Your task to perform on an android device: check storage Image 0: 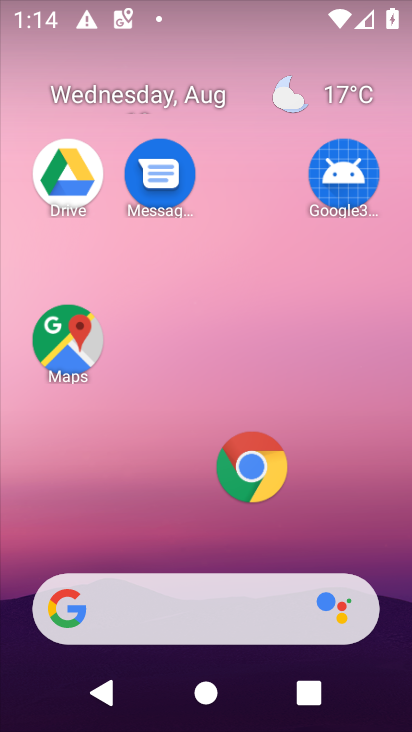
Step 0: drag from (173, 551) to (214, 296)
Your task to perform on an android device: check storage Image 1: 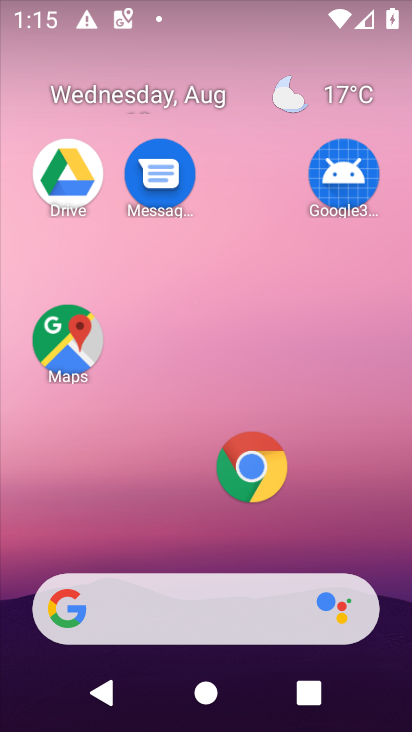
Step 1: drag from (176, 547) to (247, 59)
Your task to perform on an android device: check storage Image 2: 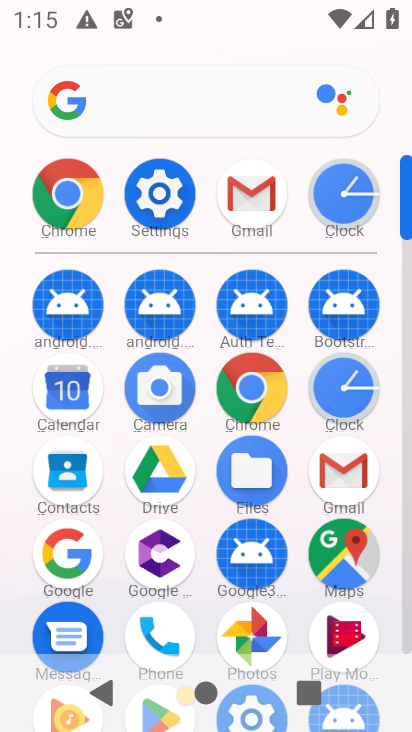
Step 2: click (194, 183)
Your task to perform on an android device: check storage Image 3: 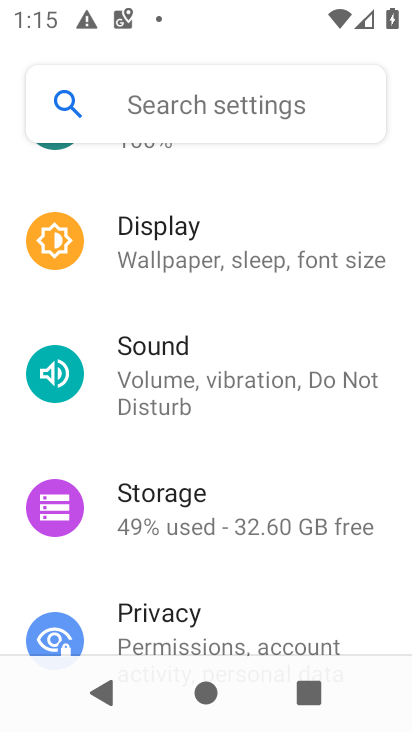
Step 3: click (168, 509)
Your task to perform on an android device: check storage Image 4: 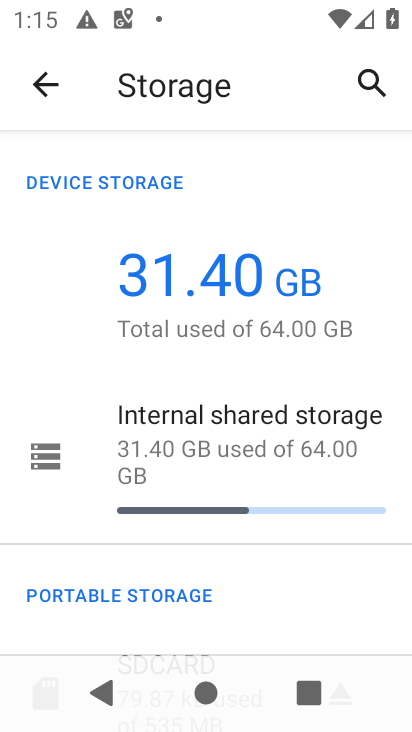
Step 4: task complete